Your task to perform on an android device: turn notification dots on Image 0: 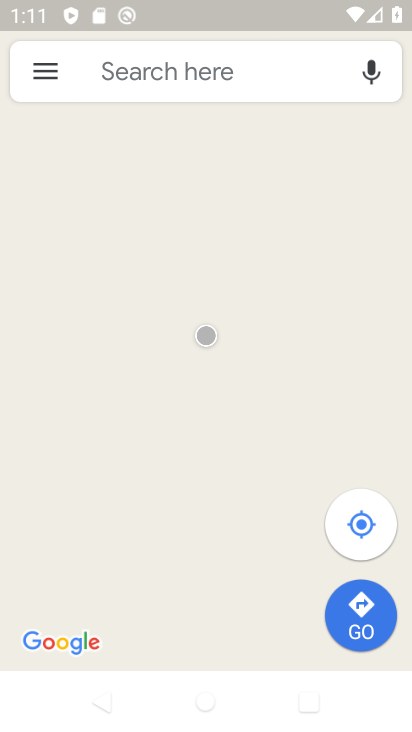
Step 0: press home button
Your task to perform on an android device: turn notification dots on Image 1: 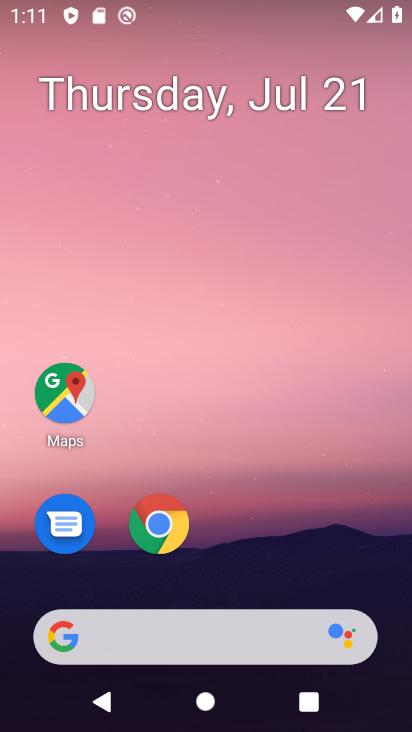
Step 1: drag from (265, 549) to (310, 61)
Your task to perform on an android device: turn notification dots on Image 2: 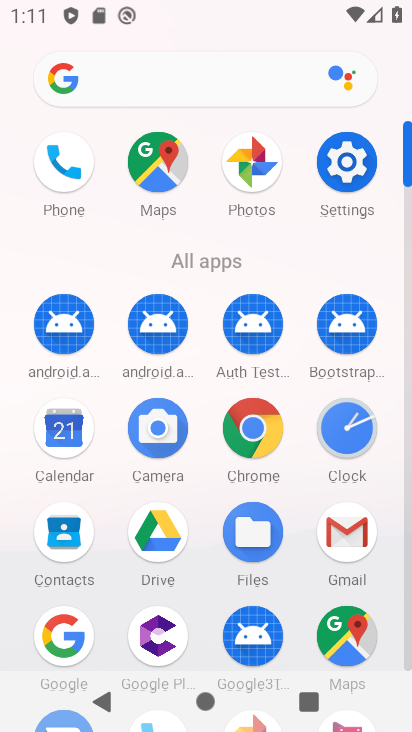
Step 2: click (348, 158)
Your task to perform on an android device: turn notification dots on Image 3: 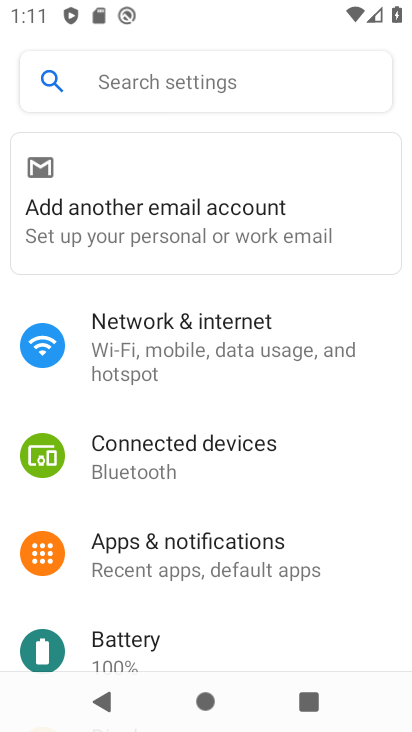
Step 3: click (220, 560)
Your task to perform on an android device: turn notification dots on Image 4: 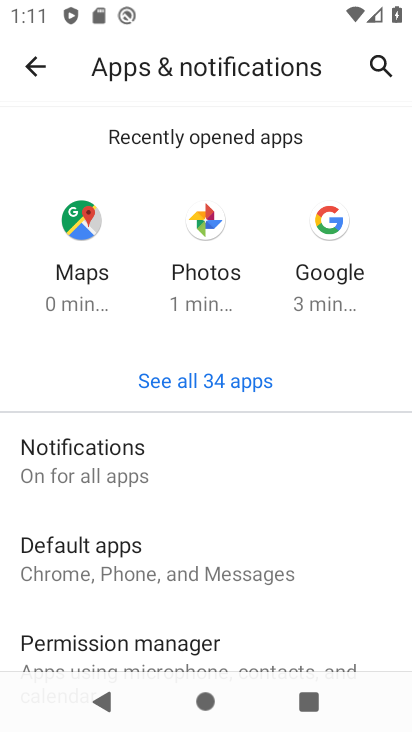
Step 4: click (124, 454)
Your task to perform on an android device: turn notification dots on Image 5: 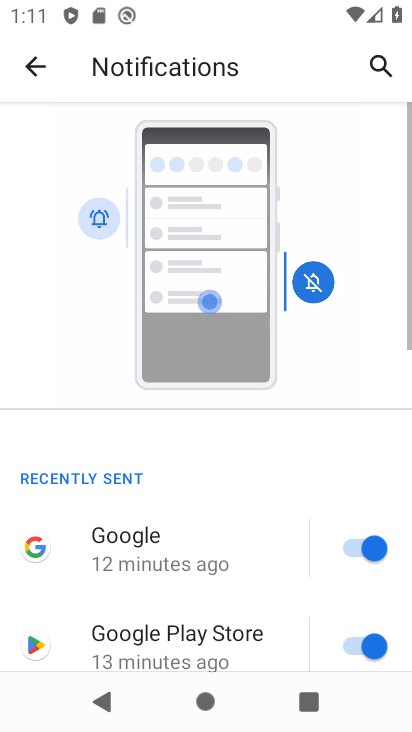
Step 5: drag from (240, 523) to (272, 15)
Your task to perform on an android device: turn notification dots on Image 6: 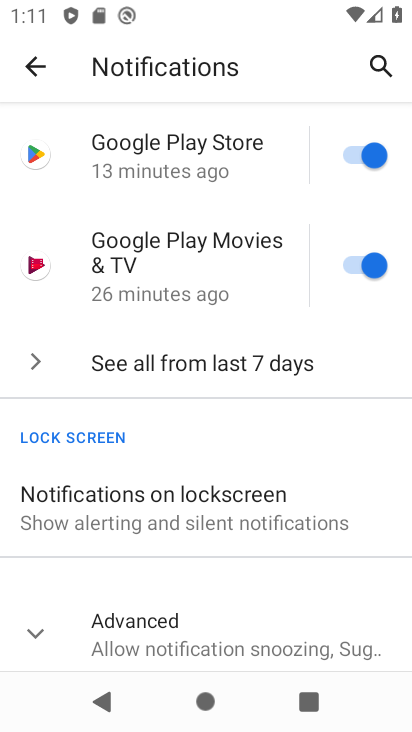
Step 6: click (38, 630)
Your task to perform on an android device: turn notification dots on Image 7: 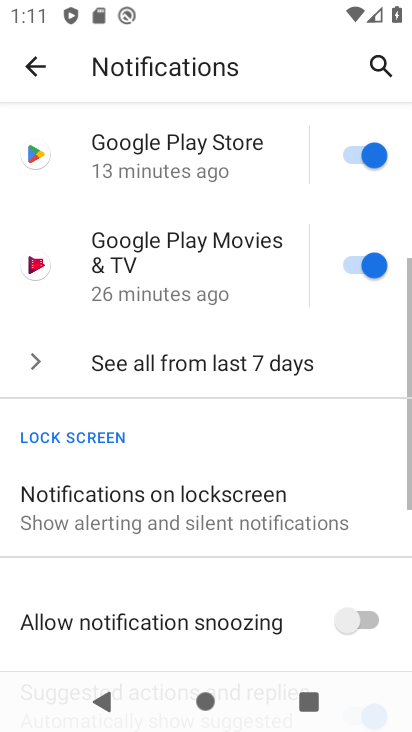
Step 7: drag from (247, 497) to (255, 62)
Your task to perform on an android device: turn notification dots on Image 8: 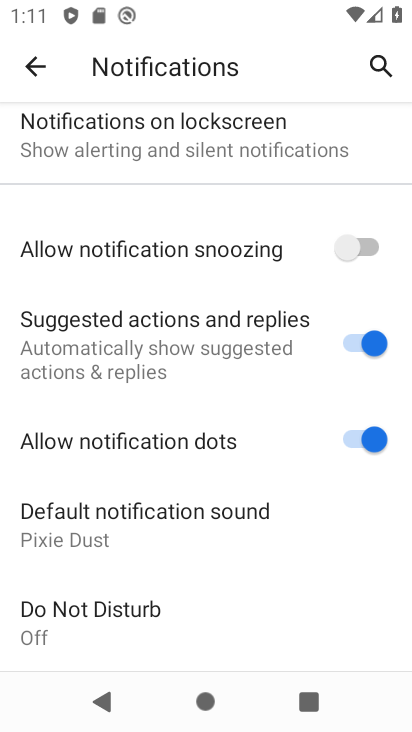
Step 8: click (354, 439)
Your task to perform on an android device: turn notification dots on Image 9: 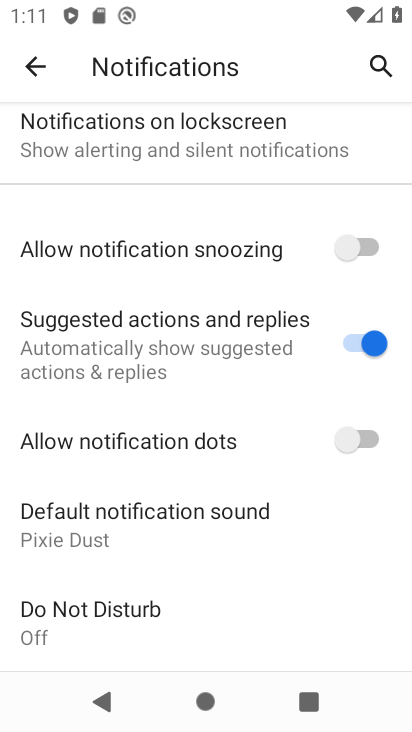
Step 9: task complete